Your task to perform on an android device: check out phone information Image 0: 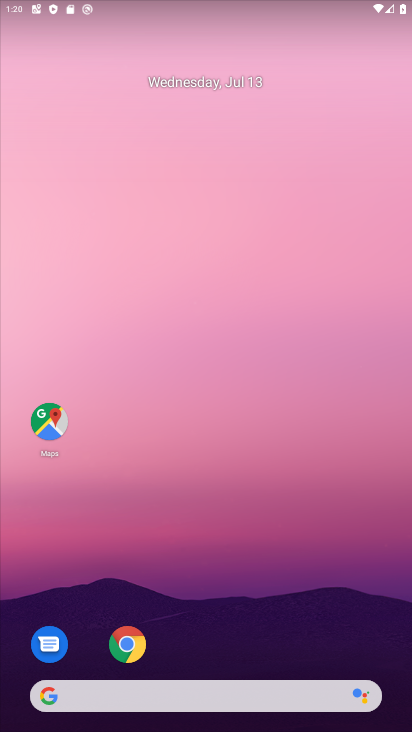
Step 0: press home button
Your task to perform on an android device: check out phone information Image 1: 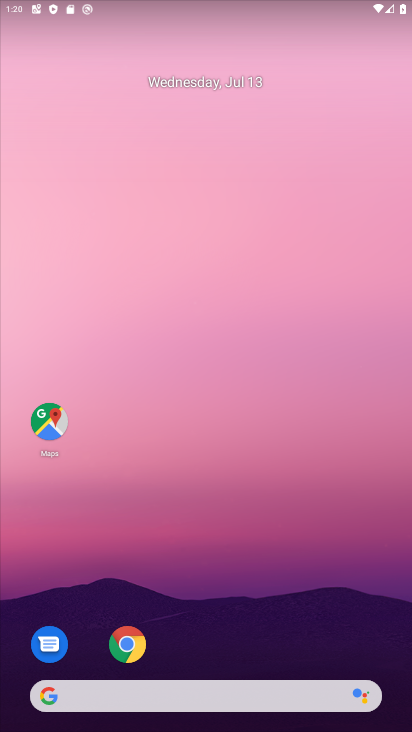
Step 1: drag from (287, 601) to (281, 129)
Your task to perform on an android device: check out phone information Image 2: 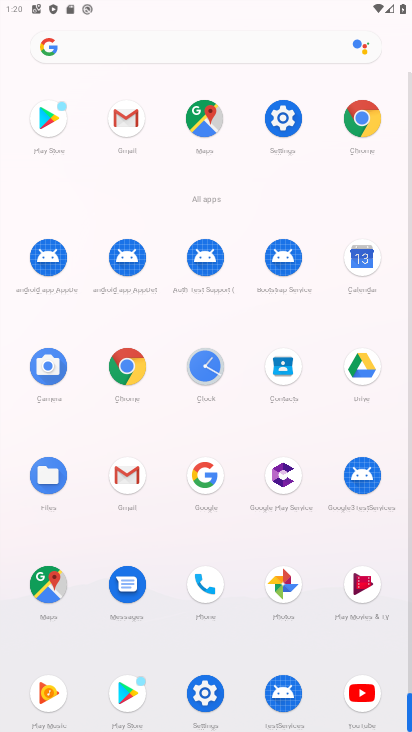
Step 2: click (282, 112)
Your task to perform on an android device: check out phone information Image 3: 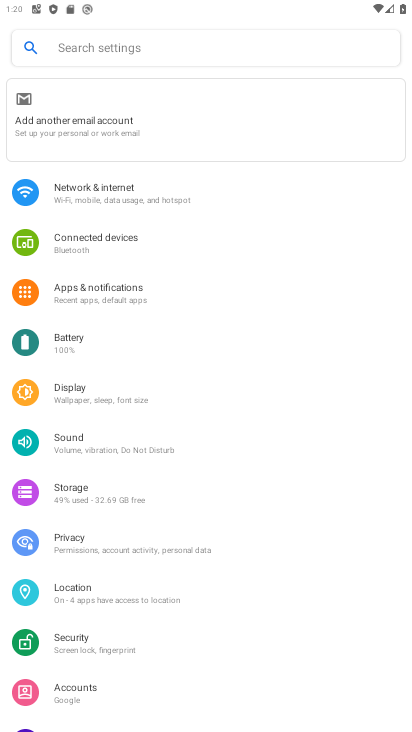
Step 3: drag from (158, 668) to (163, 144)
Your task to perform on an android device: check out phone information Image 4: 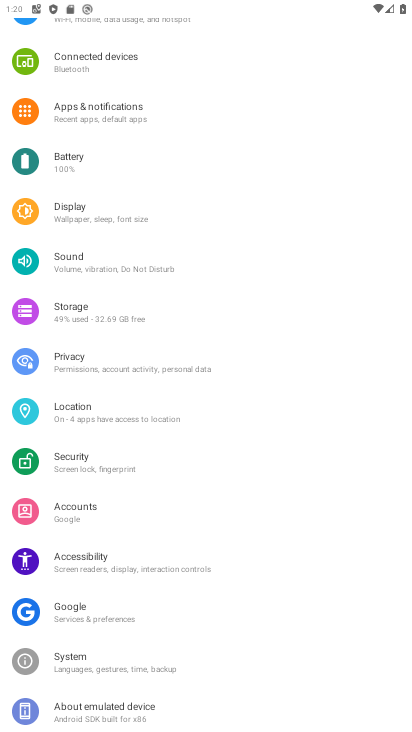
Step 4: click (109, 714)
Your task to perform on an android device: check out phone information Image 5: 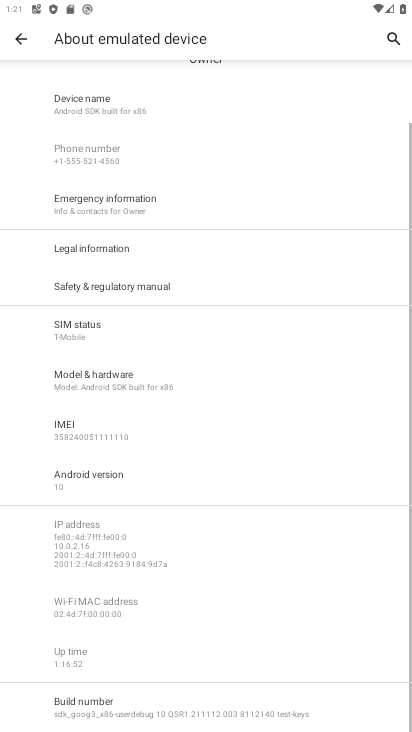
Step 5: task complete